Your task to perform on an android device: Turn off the flashlight Image 0: 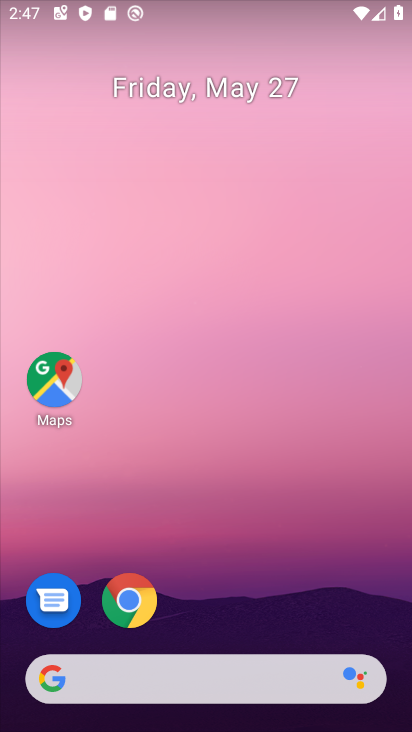
Step 0: drag from (204, 9) to (249, 298)
Your task to perform on an android device: Turn off the flashlight Image 1: 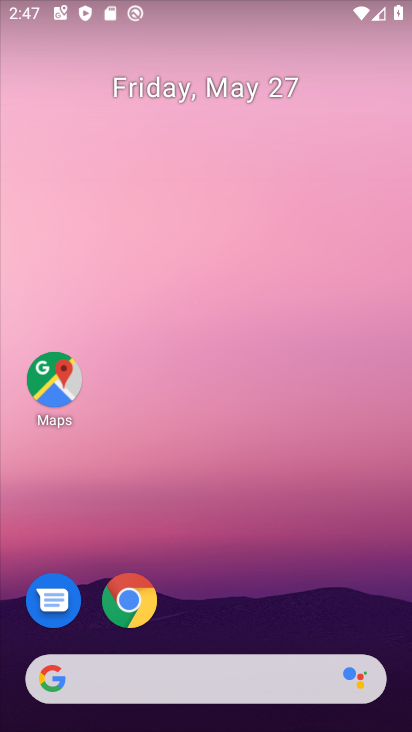
Step 1: drag from (298, 10) to (278, 442)
Your task to perform on an android device: Turn off the flashlight Image 2: 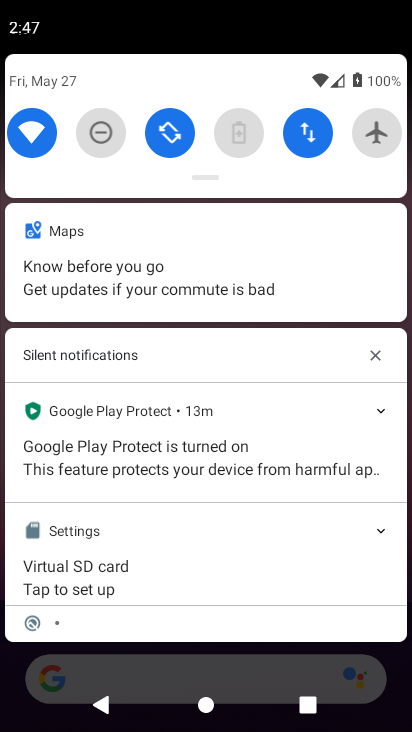
Step 2: drag from (269, 167) to (180, 617)
Your task to perform on an android device: Turn off the flashlight Image 3: 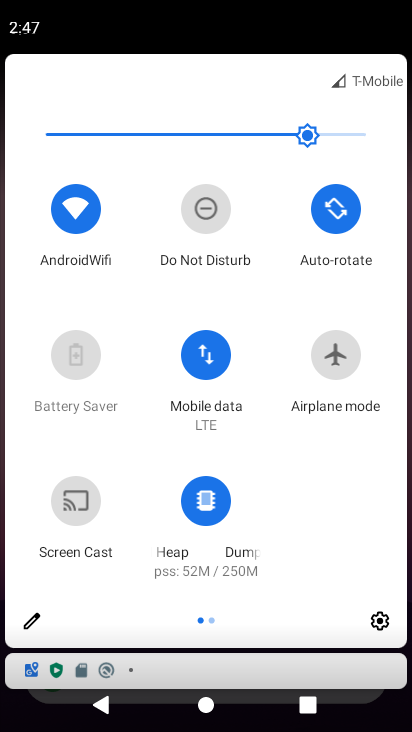
Step 3: click (37, 623)
Your task to perform on an android device: Turn off the flashlight Image 4: 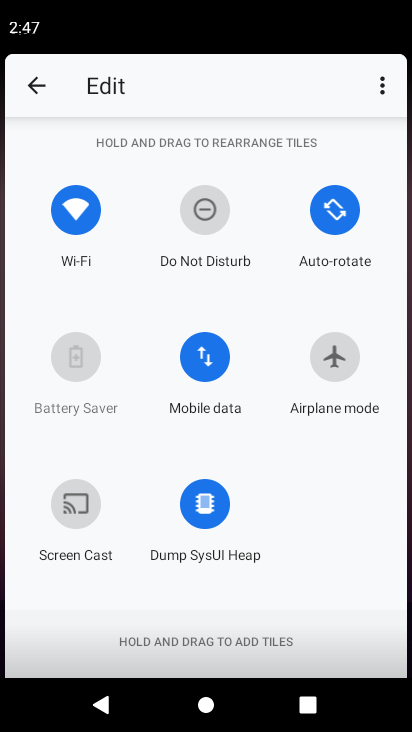
Step 4: task complete